Your task to perform on an android device: Go to CNN.com Image 0: 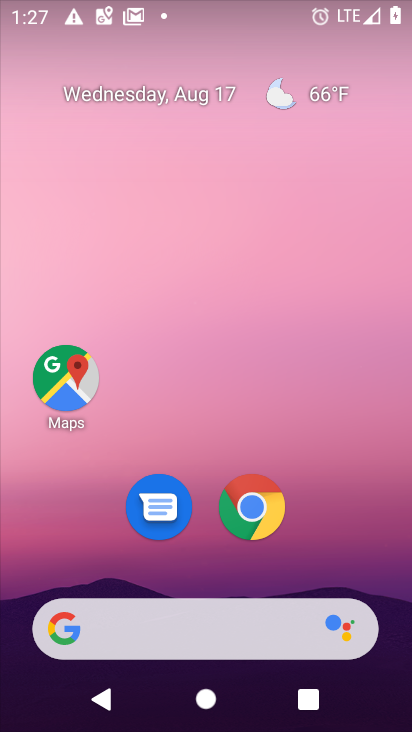
Step 0: click (239, 509)
Your task to perform on an android device: Go to CNN.com Image 1: 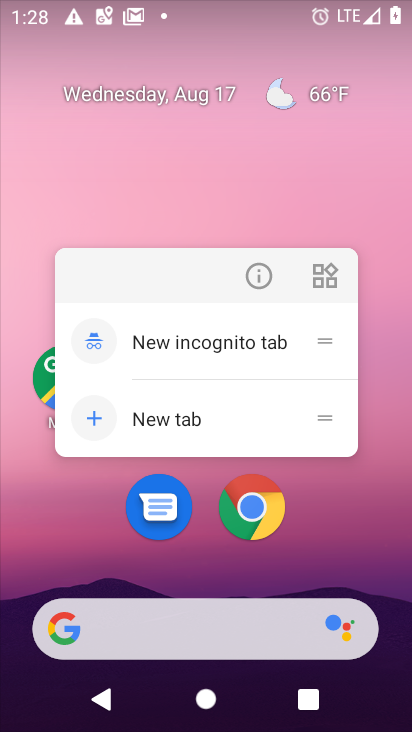
Step 1: click (257, 530)
Your task to perform on an android device: Go to CNN.com Image 2: 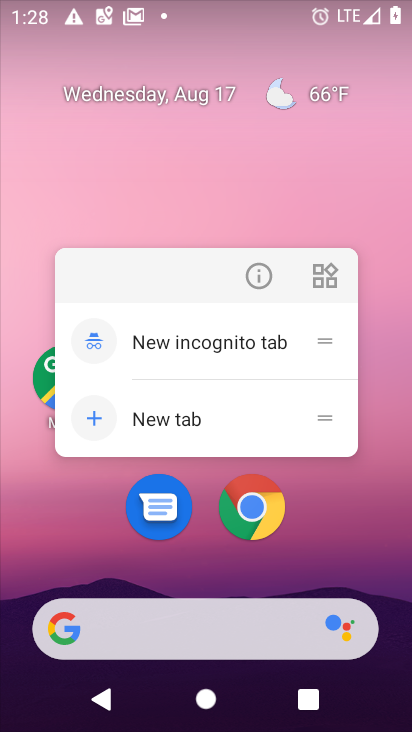
Step 2: click (245, 522)
Your task to perform on an android device: Go to CNN.com Image 3: 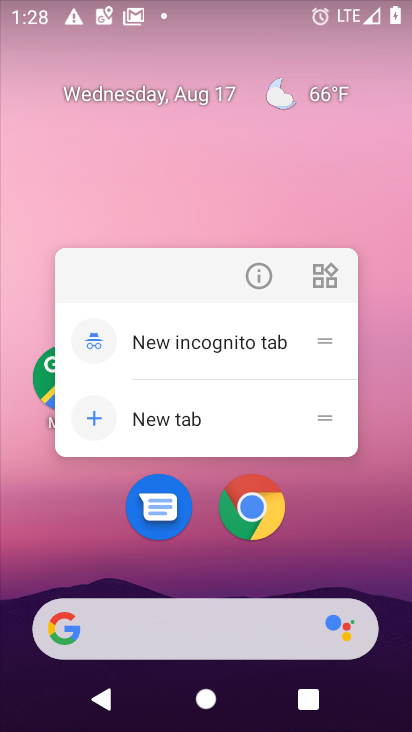
Step 3: click (213, 510)
Your task to perform on an android device: Go to CNN.com Image 4: 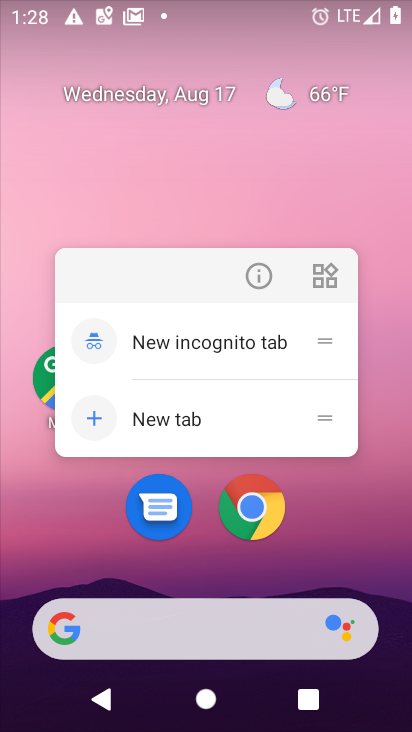
Step 4: click (230, 514)
Your task to perform on an android device: Go to CNN.com Image 5: 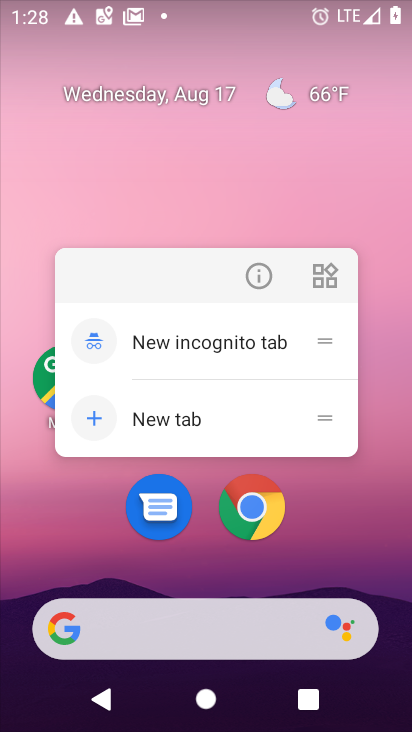
Step 5: click (247, 510)
Your task to perform on an android device: Go to CNN.com Image 6: 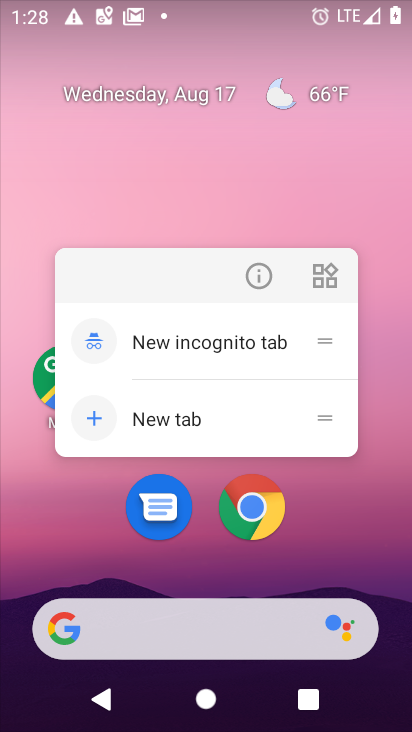
Step 6: click (283, 507)
Your task to perform on an android device: Go to CNN.com Image 7: 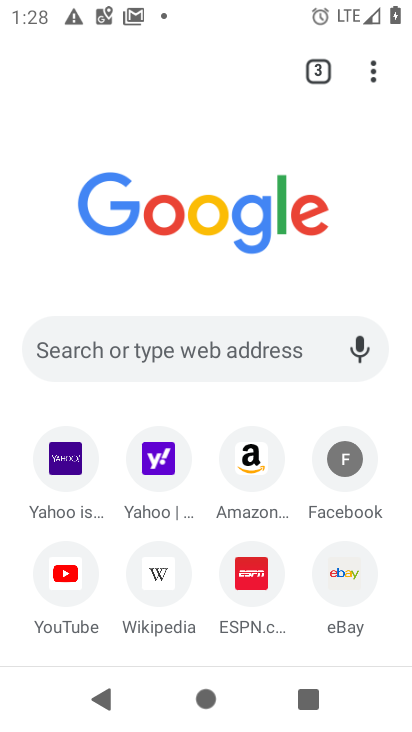
Step 7: click (214, 345)
Your task to perform on an android device: Go to CNN.com Image 8: 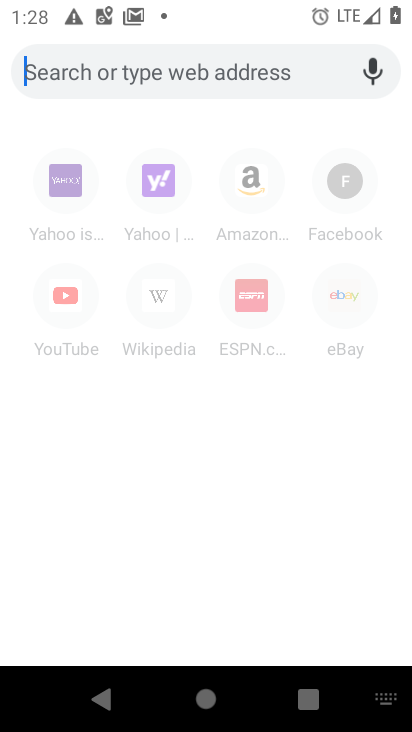
Step 8: type "CNN.com"
Your task to perform on an android device: Go to CNN.com Image 9: 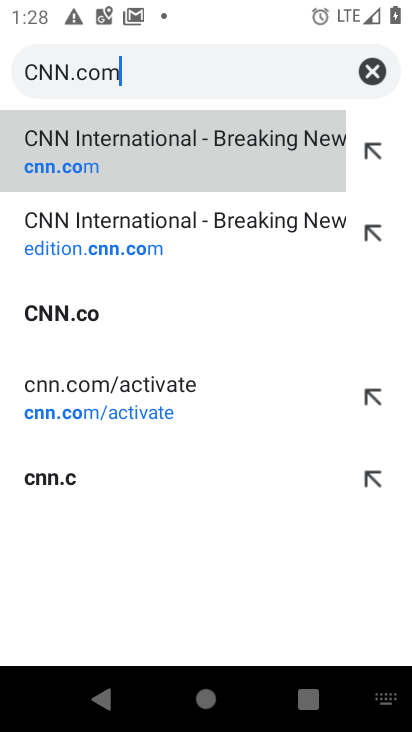
Step 9: type ""
Your task to perform on an android device: Go to CNN.com Image 10: 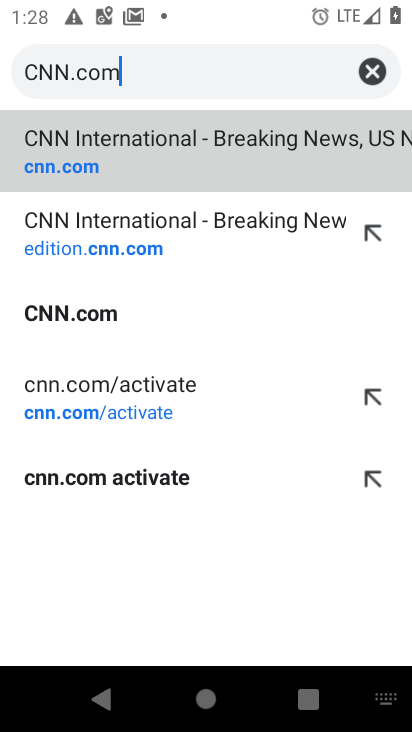
Step 10: click (73, 131)
Your task to perform on an android device: Go to CNN.com Image 11: 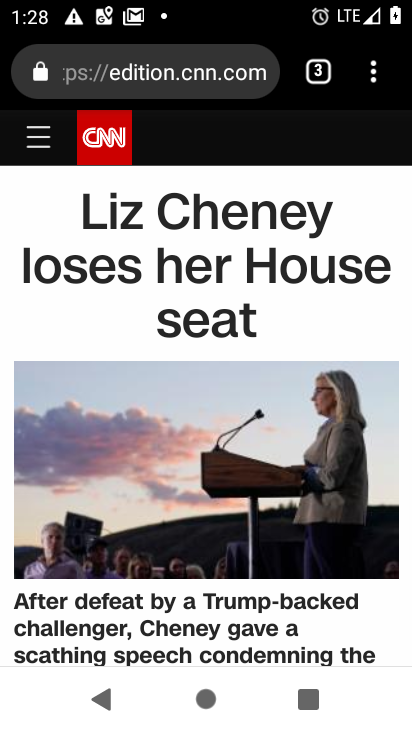
Step 11: task complete